Your task to perform on an android device: Turn on the flashlight Image 0: 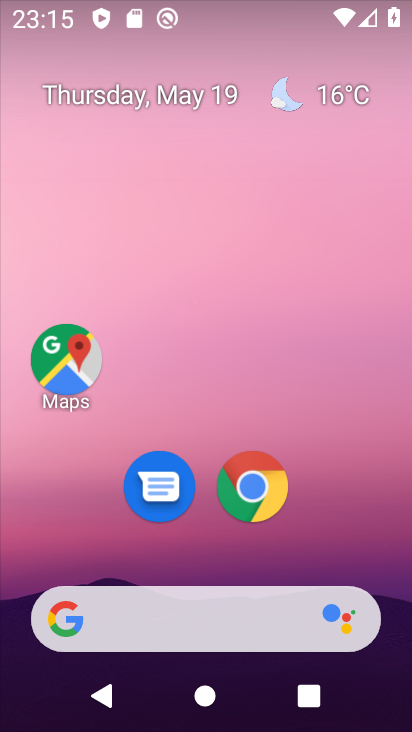
Step 0: drag from (353, 576) to (355, 84)
Your task to perform on an android device: Turn on the flashlight Image 1: 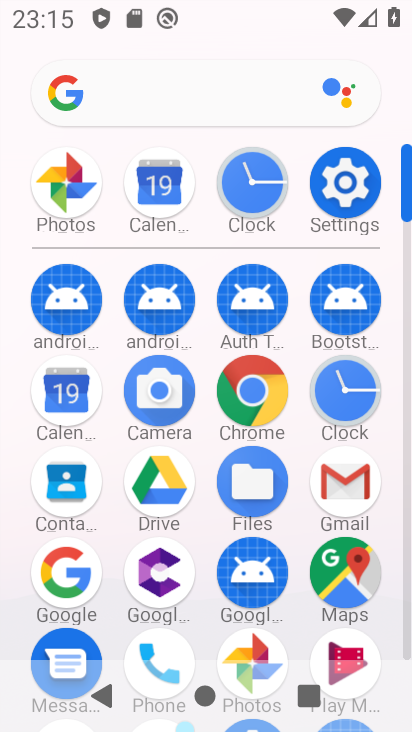
Step 1: click (366, 187)
Your task to perform on an android device: Turn on the flashlight Image 2: 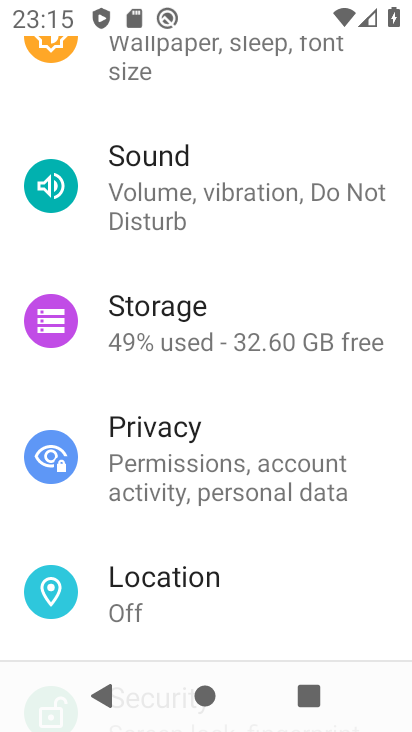
Step 2: task complete